Your task to perform on an android device: change notifications settings Image 0: 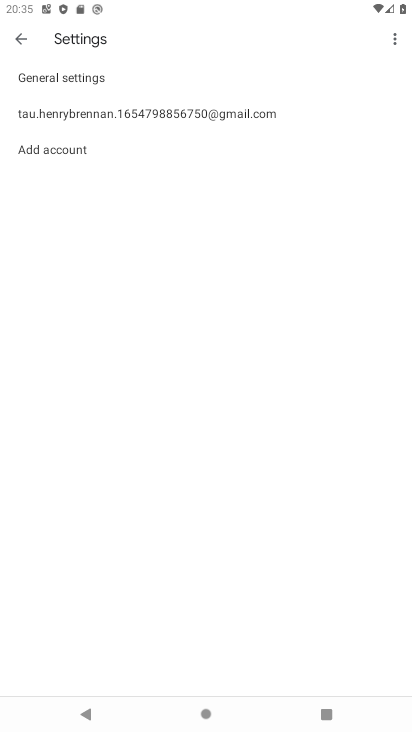
Step 0: press home button
Your task to perform on an android device: change notifications settings Image 1: 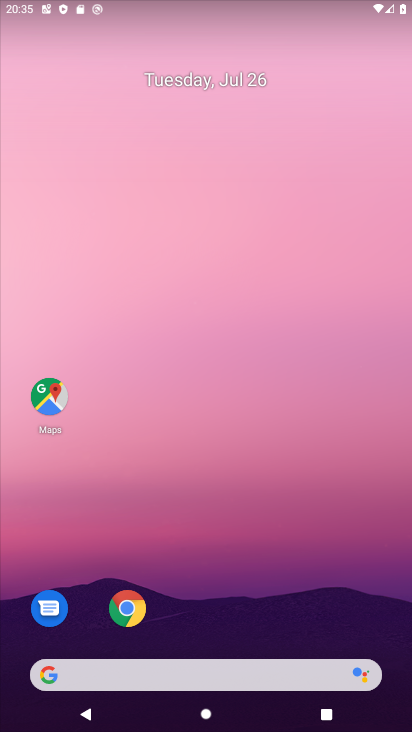
Step 1: drag from (22, 710) to (269, 106)
Your task to perform on an android device: change notifications settings Image 2: 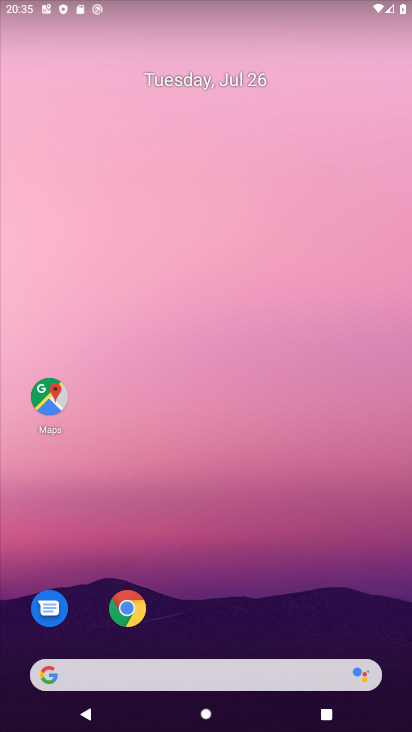
Step 2: drag from (14, 710) to (291, 15)
Your task to perform on an android device: change notifications settings Image 3: 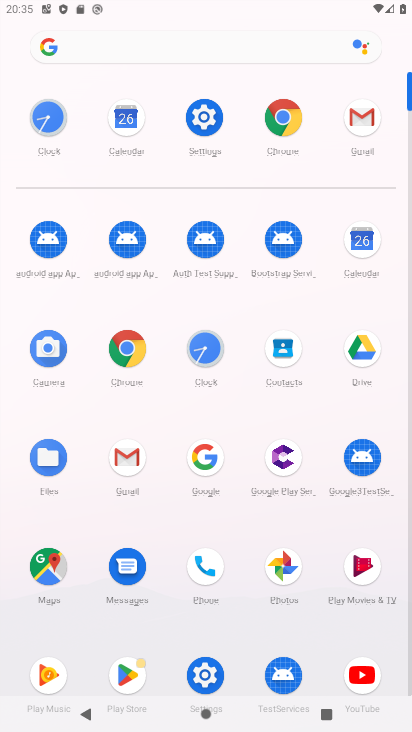
Step 3: click (191, 667)
Your task to perform on an android device: change notifications settings Image 4: 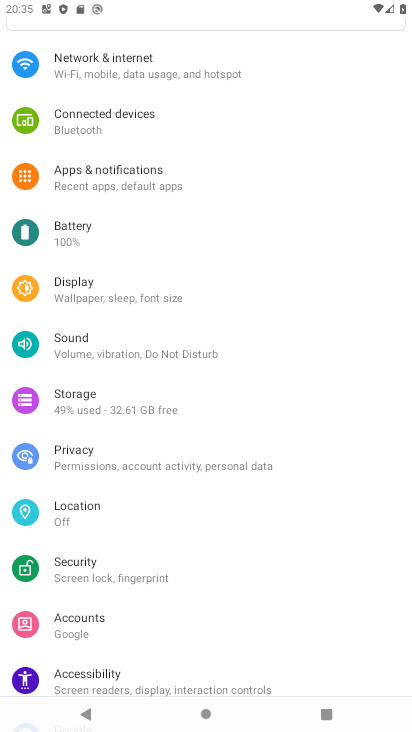
Step 4: click (85, 181)
Your task to perform on an android device: change notifications settings Image 5: 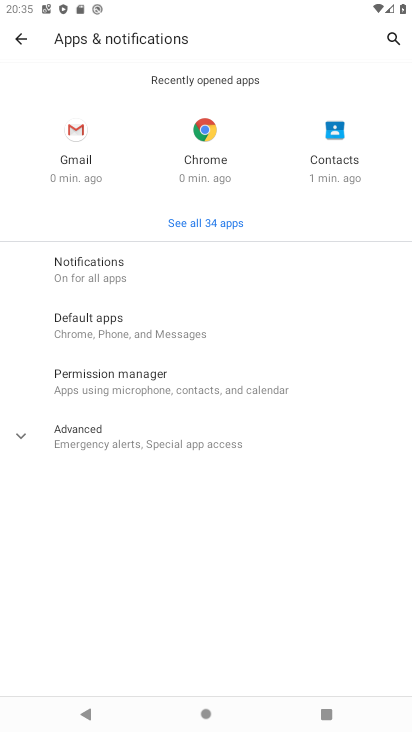
Step 5: task complete